Your task to perform on an android device: change the clock display to digital Image 0: 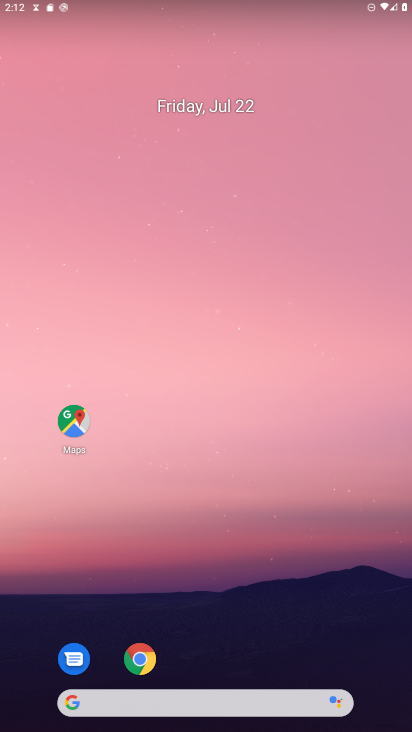
Step 0: drag from (255, 589) to (270, 137)
Your task to perform on an android device: change the clock display to digital Image 1: 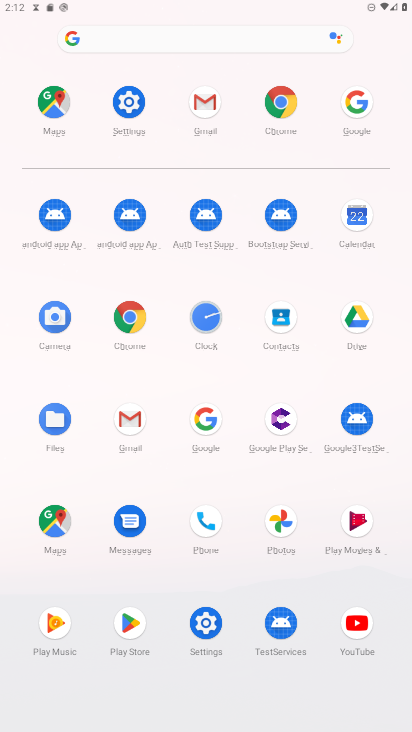
Step 1: click (217, 322)
Your task to perform on an android device: change the clock display to digital Image 2: 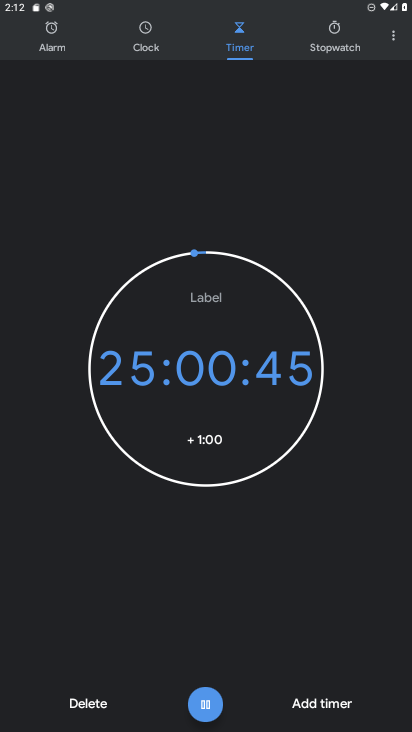
Step 2: click (394, 39)
Your task to perform on an android device: change the clock display to digital Image 3: 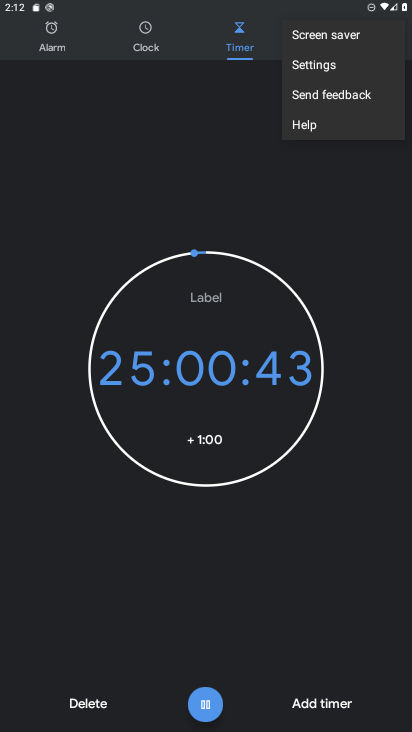
Step 3: click (329, 73)
Your task to perform on an android device: change the clock display to digital Image 4: 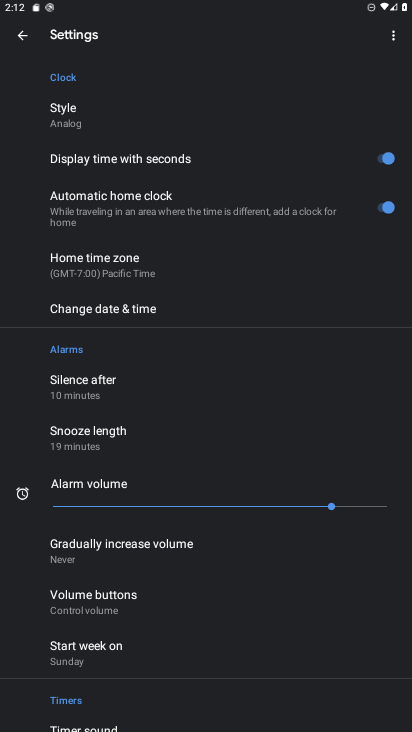
Step 4: click (74, 121)
Your task to perform on an android device: change the clock display to digital Image 5: 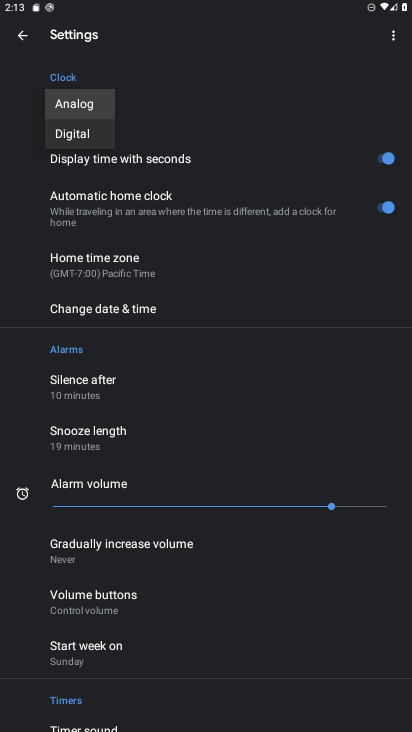
Step 5: click (84, 136)
Your task to perform on an android device: change the clock display to digital Image 6: 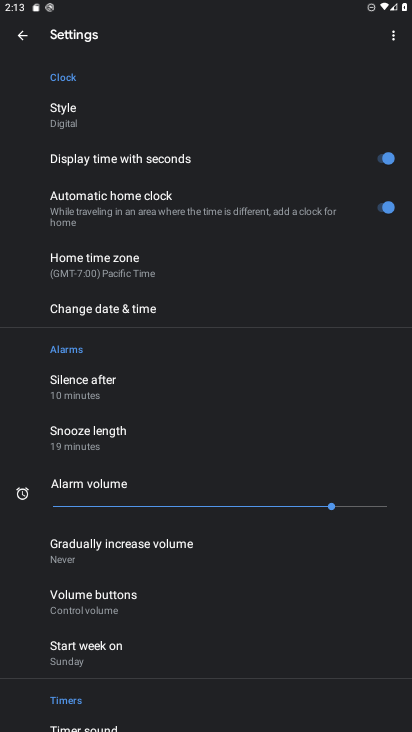
Step 6: task complete